Your task to perform on an android device: What's the weather today? Image 0: 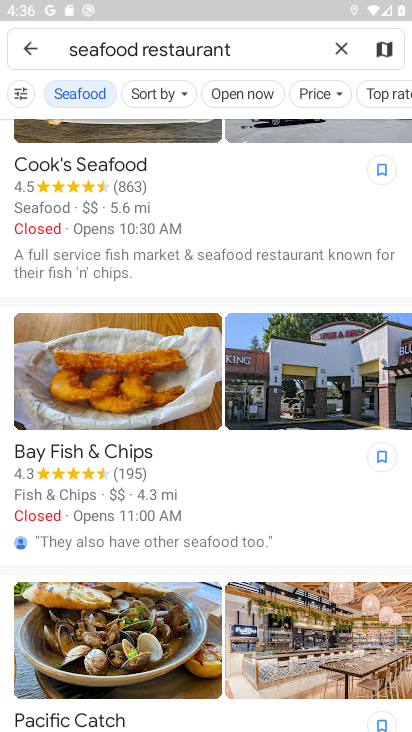
Step 0: drag from (230, 567) to (239, 181)
Your task to perform on an android device: What's the weather today? Image 1: 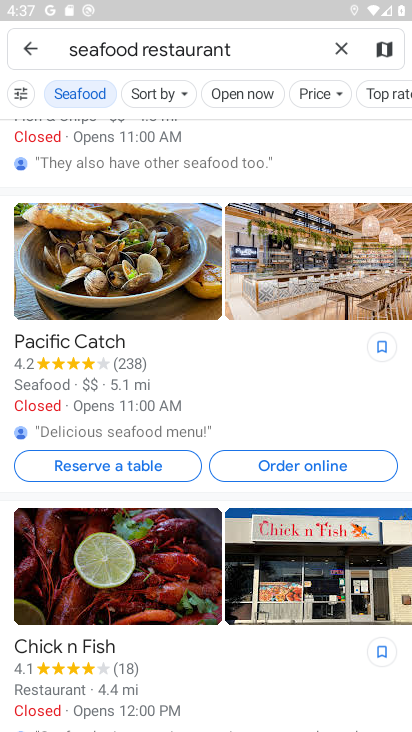
Step 1: drag from (219, 652) to (244, 151)
Your task to perform on an android device: What's the weather today? Image 2: 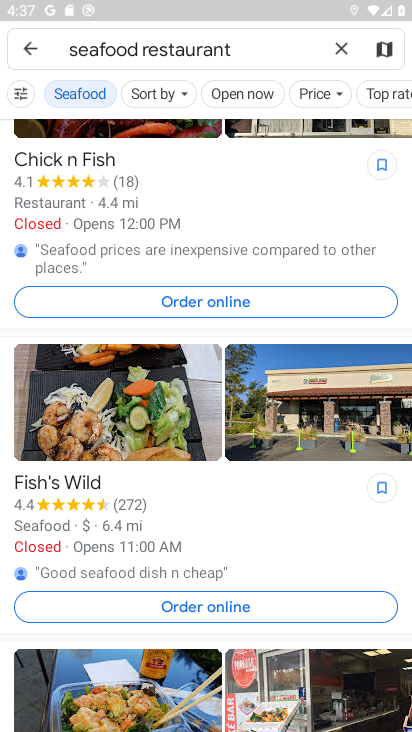
Step 2: press home button
Your task to perform on an android device: What's the weather today? Image 3: 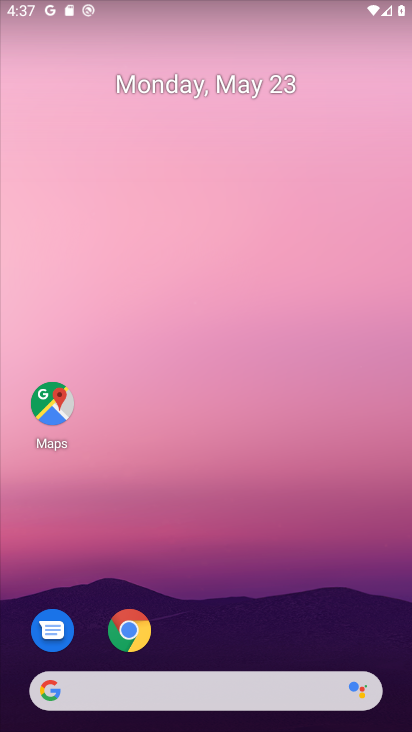
Step 3: drag from (11, 252) to (407, 254)
Your task to perform on an android device: What's the weather today? Image 4: 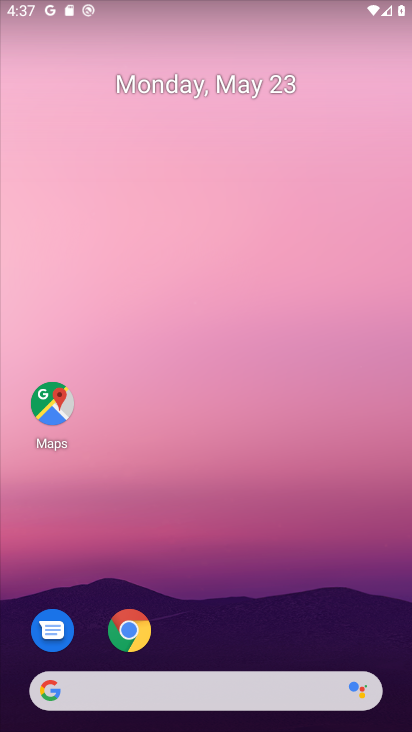
Step 4: drag from (25, 284) to (409, 262)
Your task to perform on an android device: What's the weather today? Image 5: 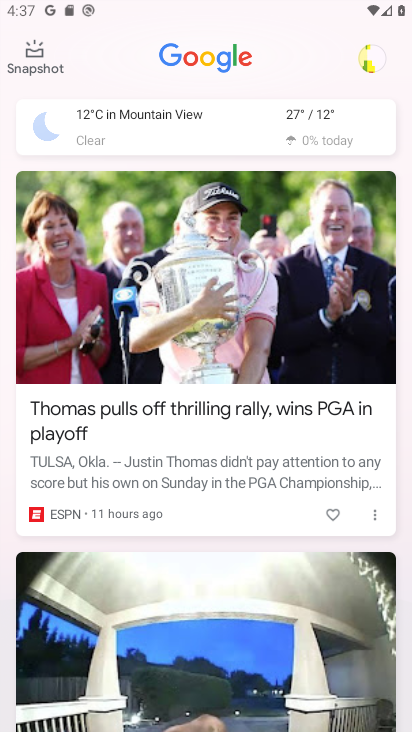
Step 5: click (269, 110)
Your task to perform on an android device: What's the weather today? Image 6: 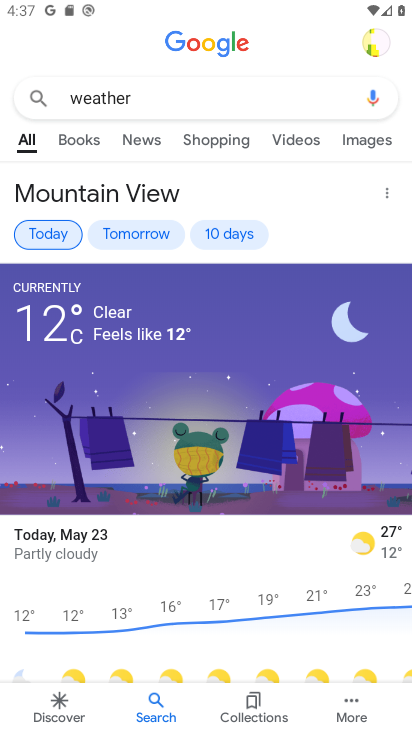
Step 6: task complete